Your task to perform on an android device: choose inbox layout in the gmail app Image 0: 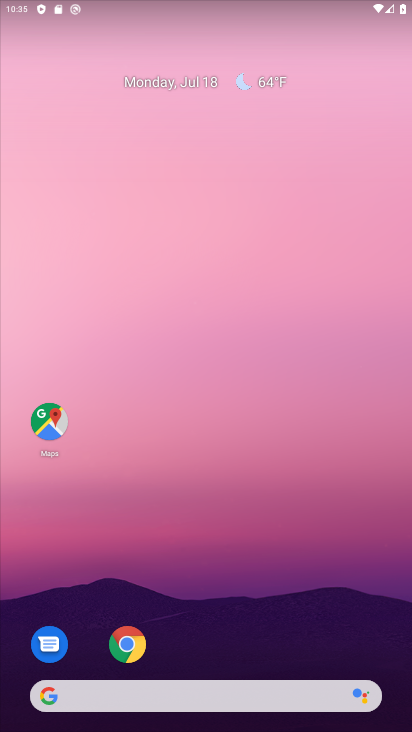
Step 0: drag from (249, 646) to (151, 75)
Your task to perform on an android device: choose inbox layout in the gmail app Image 1: 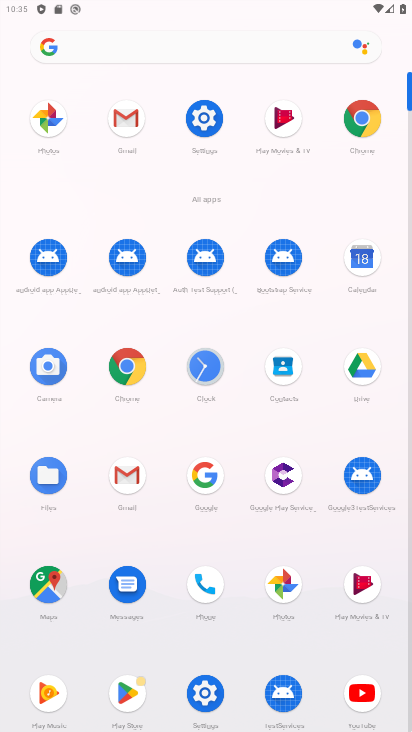
Step 1: click (131, 114)
Your task to perform on an android device: choose inbox layout in the gmail app Image 2: 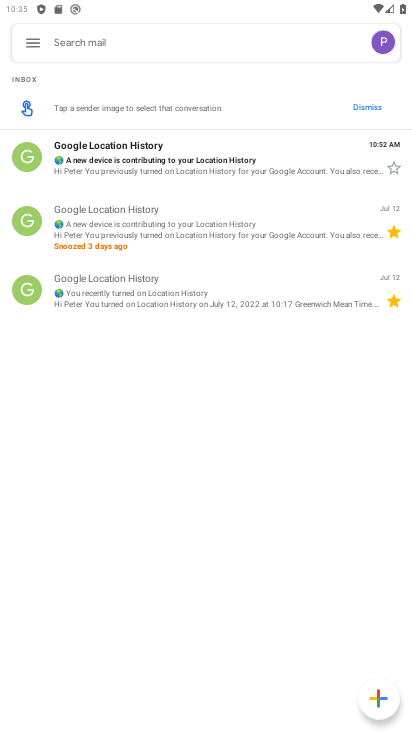
Step 2: click (31, 49)
Your task to perform on an android device: choose inbox layout in the gmail app Image 3: 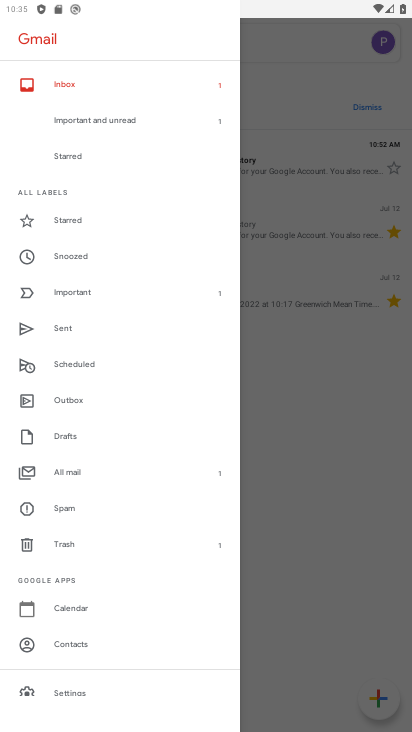
Step 3: click (74, 685)
Your task to perform on an android device: choose inbox layout in the gmail app Image 4: 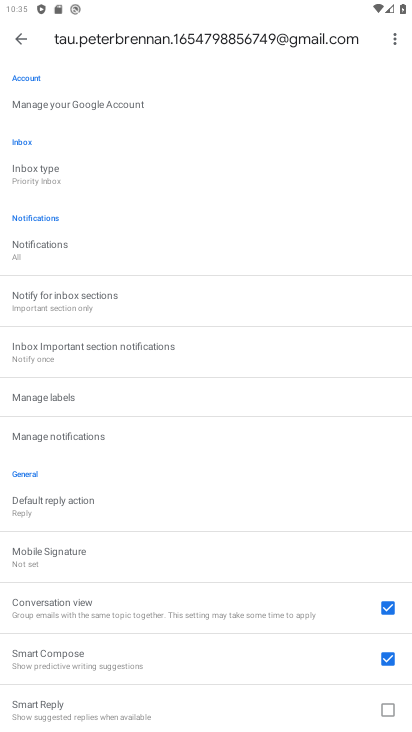
Step 4: click (27, 184)
Your task to perform on an android device: choose inbox layout in the gmail app Image 5: 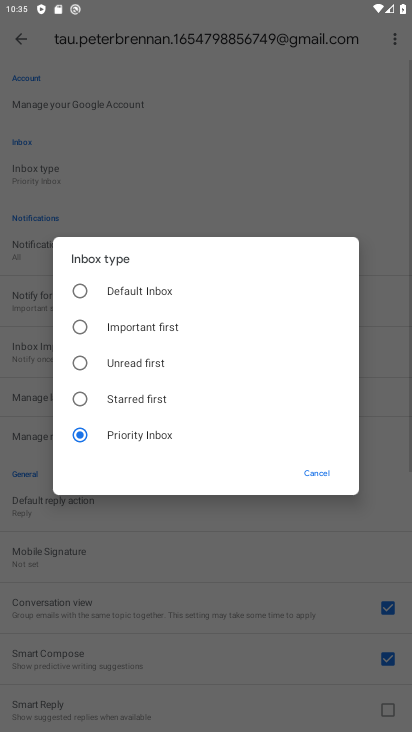
Step 5: click (118, 287)
Your task to perform on an android device: choose inbox layout in the gmail app Image 6: 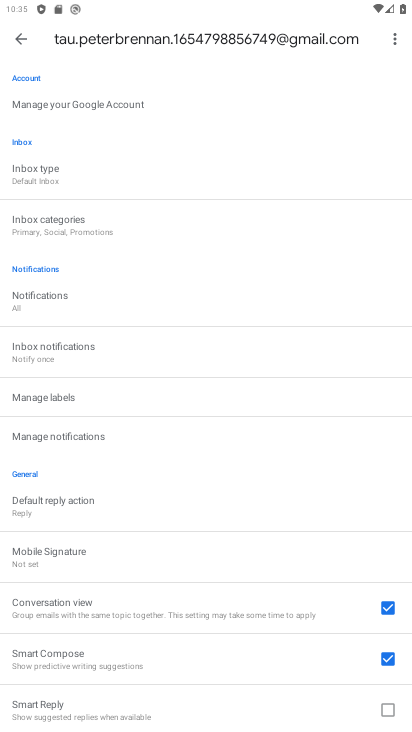
Step 6: task complete